Your task to perform on an android device: When is my next appointment? Image 0: 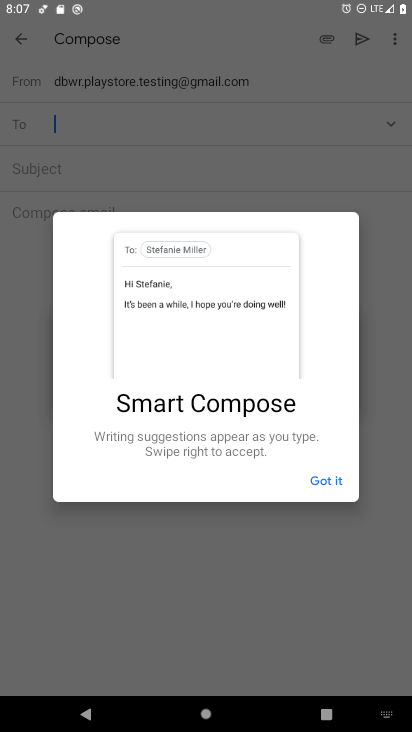
Step 0: press home button
Your task to perform on an android device: When is my next appointment? Image 1: 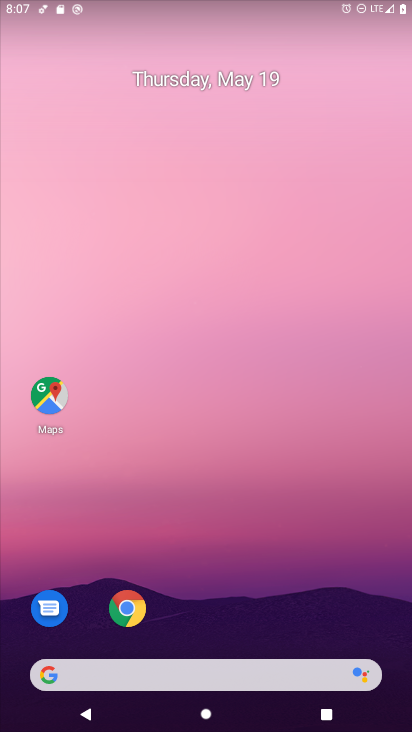
Step 1: drag from (384, 626) to (354, 162)
Your task to perform on an android device: When is my next appointment? Image 2: 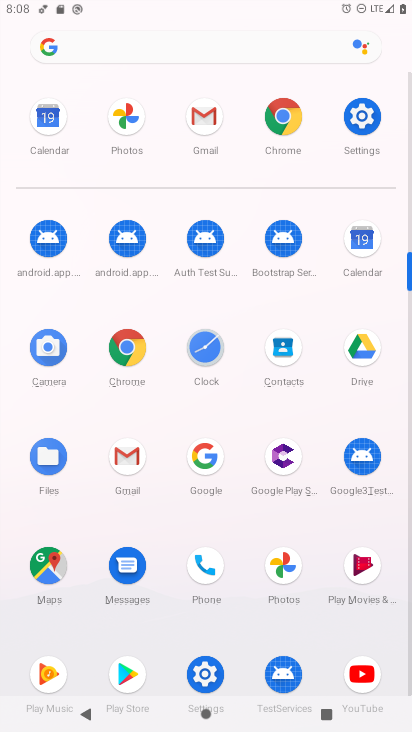
Step 2: click (358, 241)
Your task to perform on an android device: When is my next appointment? Image 3: 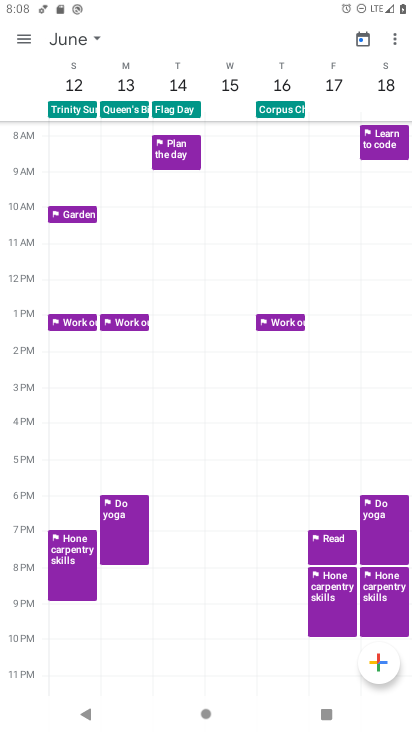
Step 3: press back button
Your task to perform on an android device: When is my next appointment? Image 4: 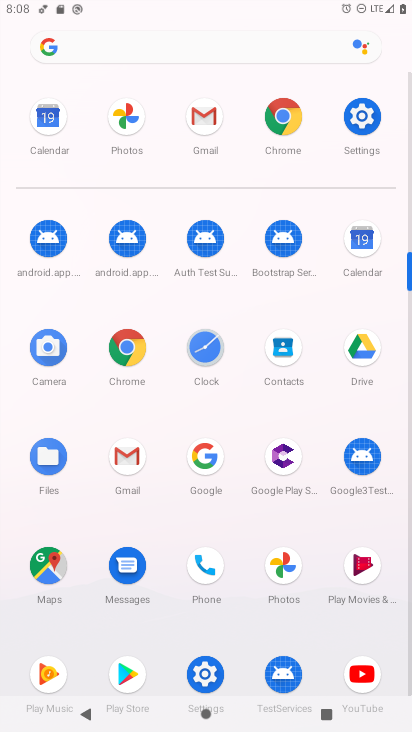
Step 4: click (365, 234)
Your task to perform on an android device: When is my next appointment? Image 5: 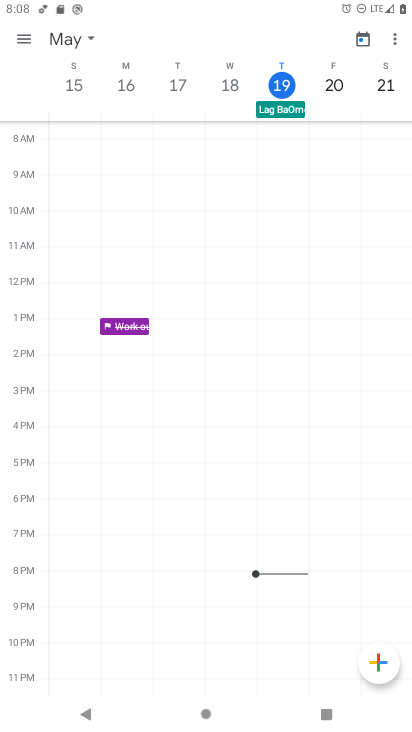
Step 5: click (92, 37)
Your task to perform on an android device: When is my next appointment? Image 6: 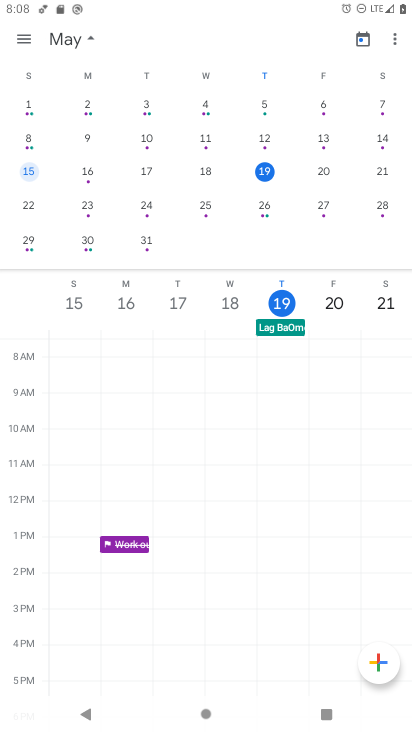
Step 6: click (21, 42)
Your task to perform on an android device: When is my next appointment? Image 7: 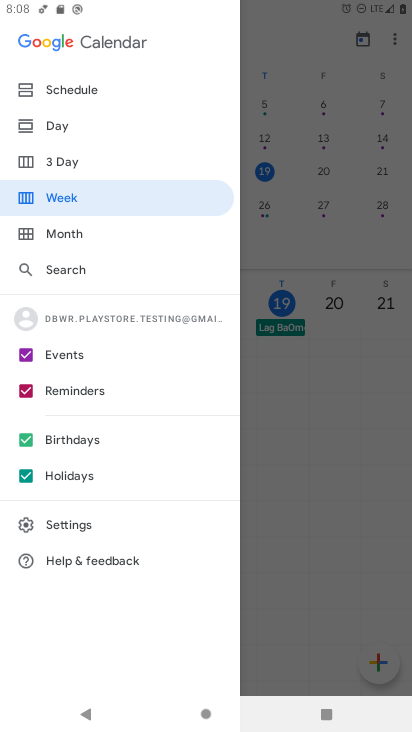
Step 7: click (32, 476)
Your task to perform on an android device: When is my next appointment? Image 8: 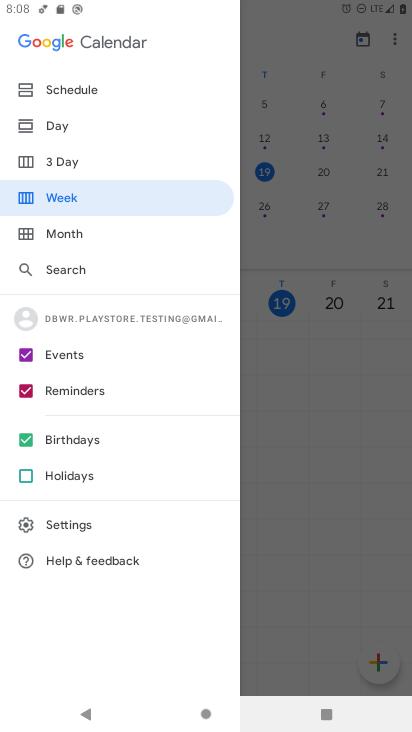
Step 8: click (21, 440)
Your task to perform on an android device: When is my next appointment? Image 9: 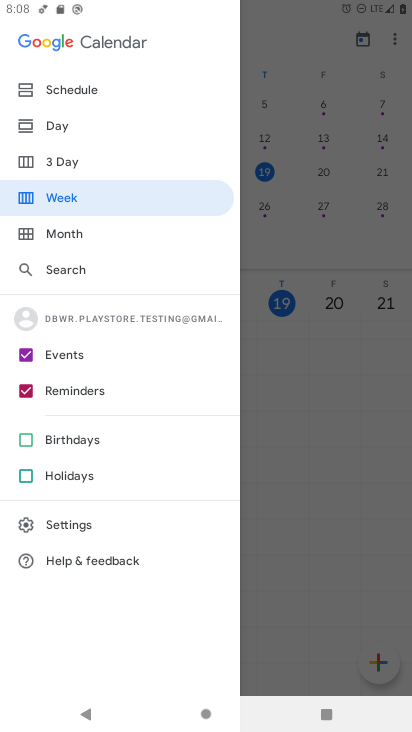
Step 9: click (26, 391)
Your task to perform on an android device: When is my next appointment? Image 10: 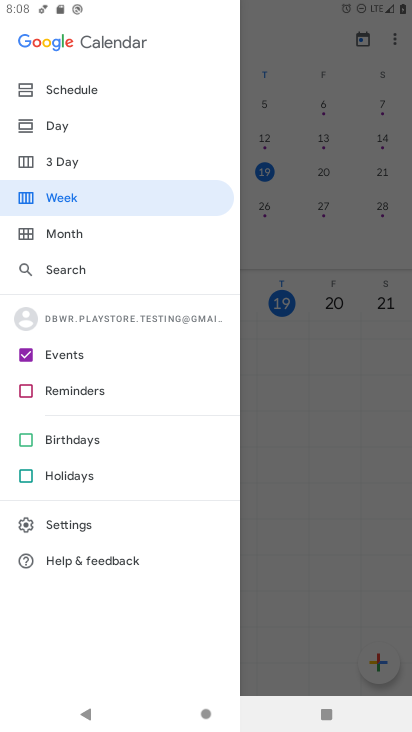
Step 10: click (70, 87)
Your task to perform on an android device: When is my next appointment? Image 11: 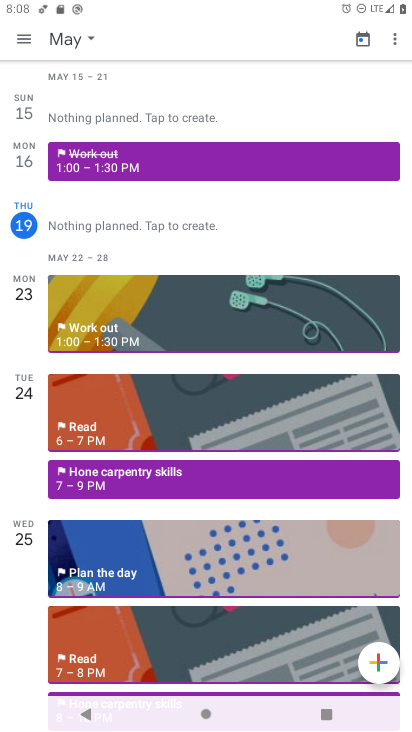
Step 11: task complete